Your task to perform on an android device: turn pop-ups on in chrome Image 0: 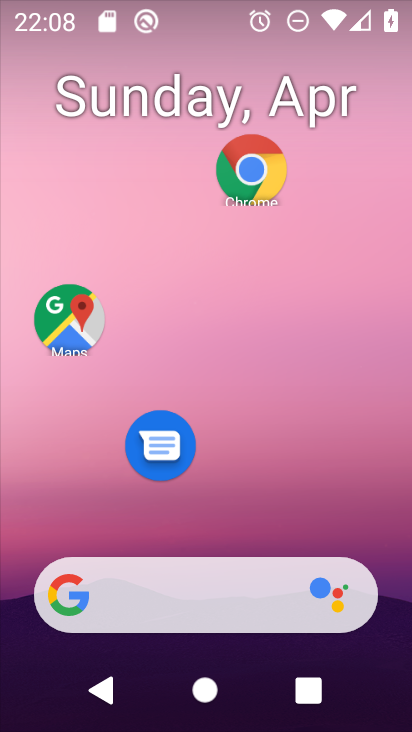
Step 0: press home button
Your task to perform on an android device: turn pop-ups on in chrome Image 1: 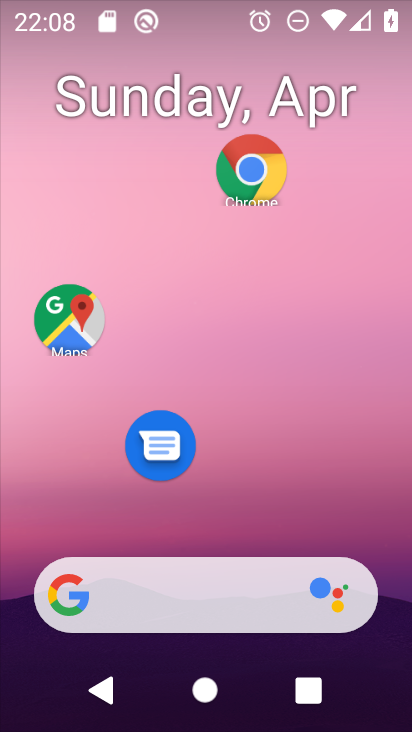
Step 1: click (250, 172)
Your task to perform on an android device: turn pop-ups on in chrome Image 2: 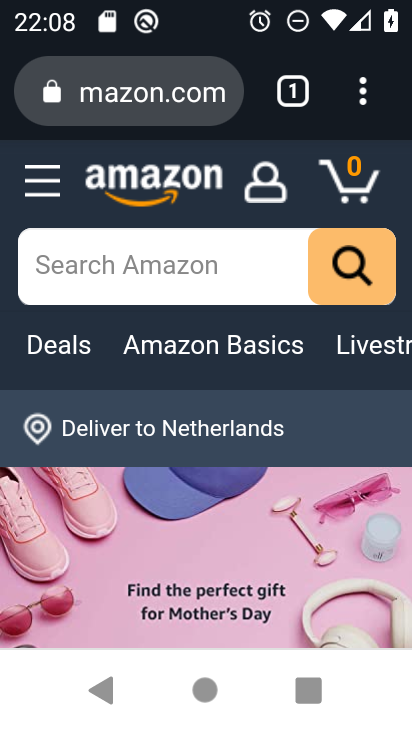
Step 2: click (361, 82)
Your task to perform on an android device: turn pop-ups on in chrome Image 3: 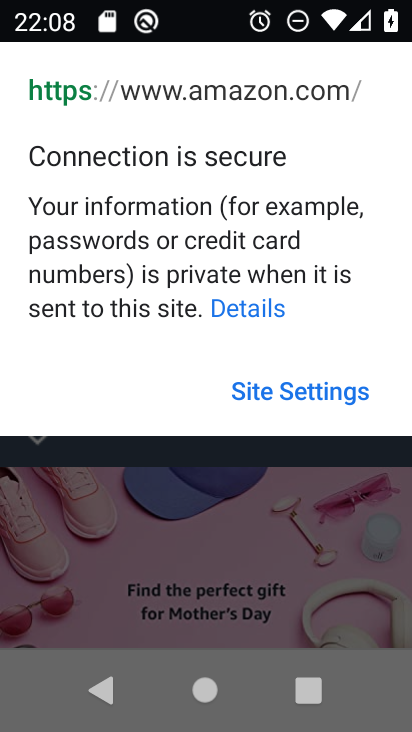
Step 3: press back button
Your task to perform on an android device: turn pop-ups on in chrome Image 4: 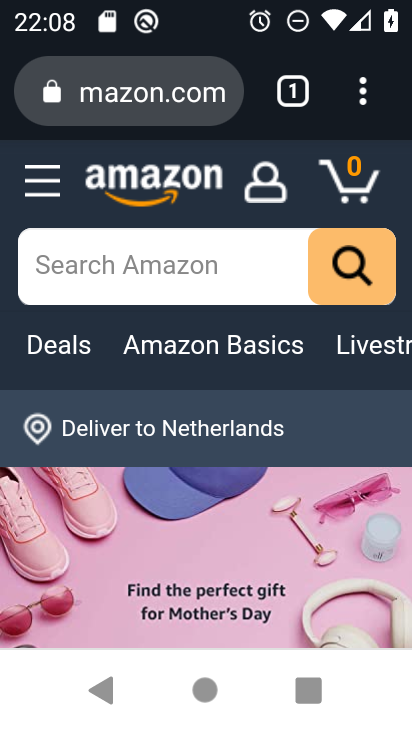
Step 4: click (351, 89)
Your task to perform on an android device: turn pop-ups on in chrome Image 5: 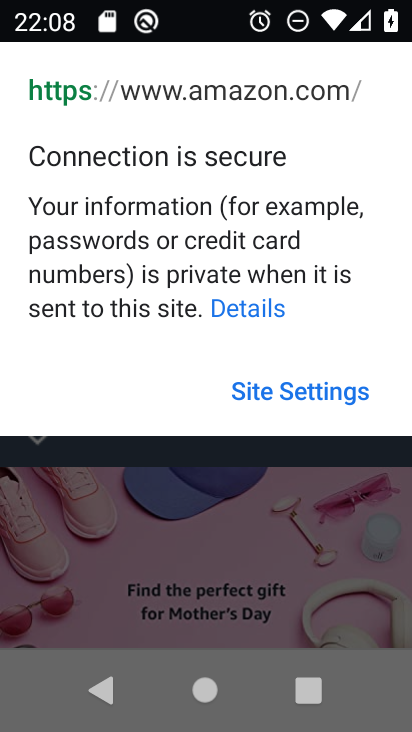
Step 5: press back button
Your task to perform on an android device: turn pop-ups on in chrome Image 6: 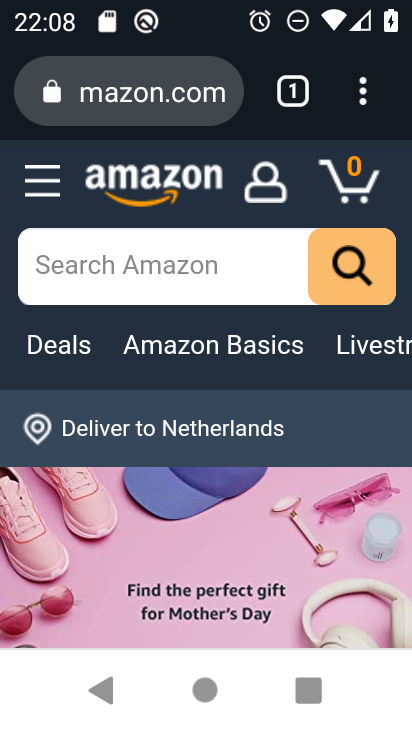
Step 6: click (361, 89)
Your task to perform on an android device: turn pop-ups on in chrome Image 7: 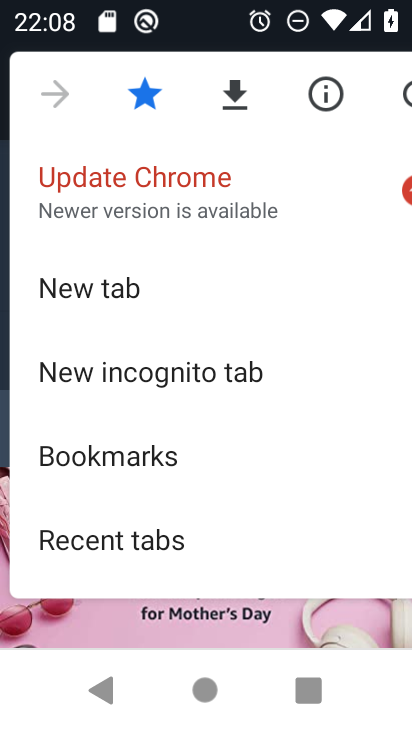
Step 7: drag from (259, 512) to (275, 215)
Your task to perform on an android device: turn pop-ups on in chrome Image 8: 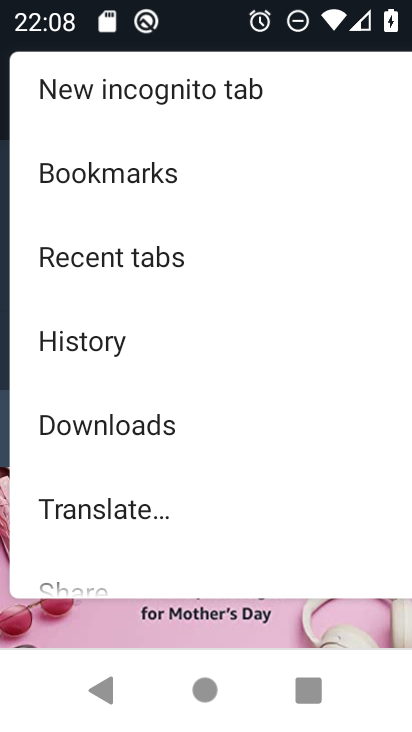
Step 8: drag from (202, 505) to (220, 215)
Your task to perform on an android device: turn pop-ups on in chrome Image 9: 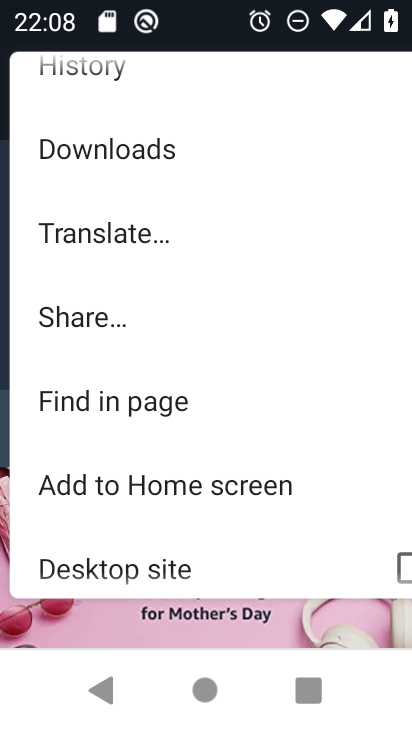
Step 9: drag from (257, 523) to (254, 244)
Your task to perform on an android device: turn pop-ups on in chrome Image 10: 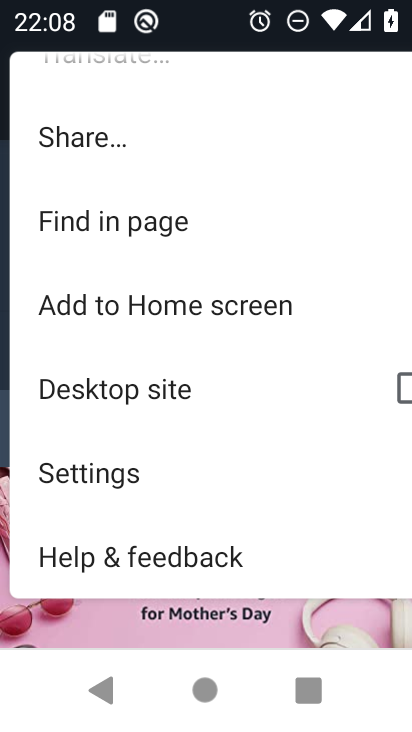
Step 10: click (139, 475)
Your task to perform on an android device: turn pop-ups on in chrome Image 11: 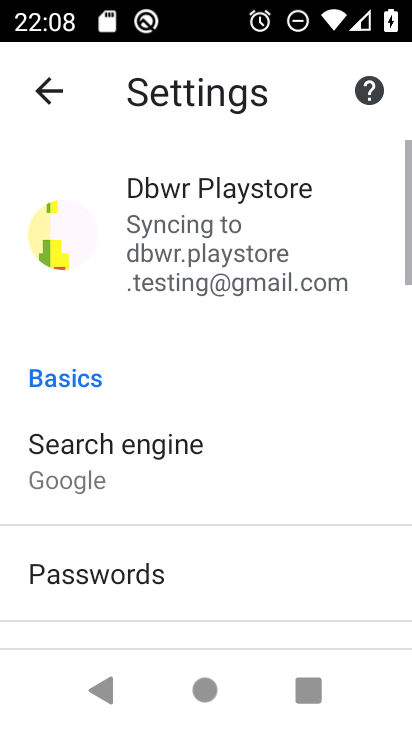
Step 11: drag from (225, 556) to (250, 156)
Your task to perform on an android device: turn pop-ups on in chrome Image 12: 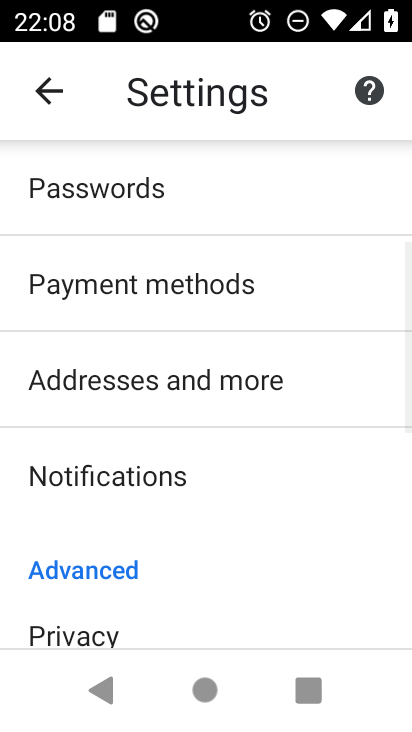
Step 12: drag from (210, 577) to (204, 239)
Your task to perform on an android device: turn pop-ups on in chrome Image 13: 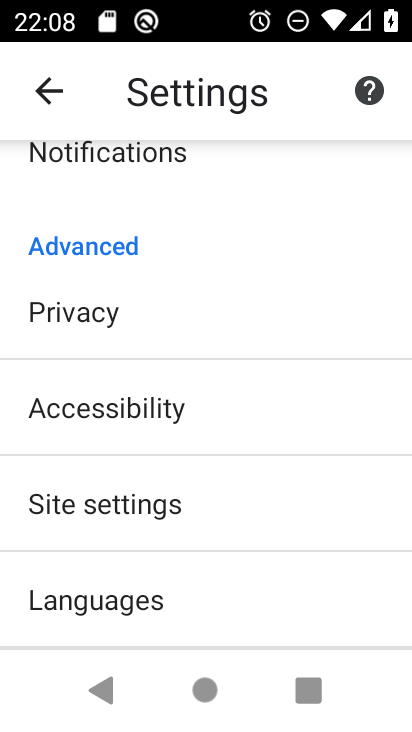
Step 13: click (100, 509)
Your task to perform on an android device: turn pop-ups on in chrome Image 14: 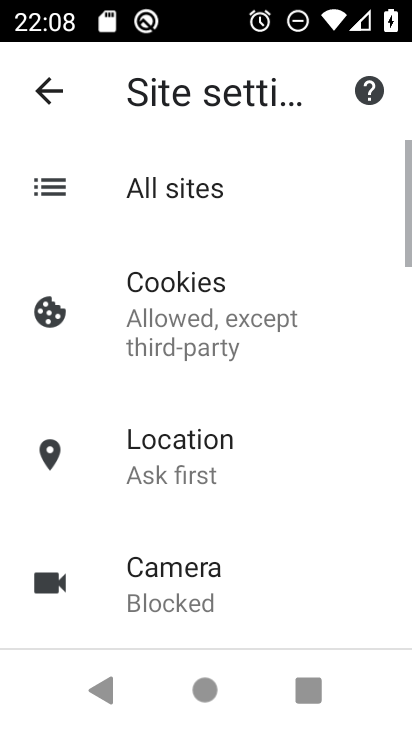
Step 14: drag from (292, 528) to (336, 117)
Your task to perform on an android device: turn pop-ups on in chrome Image 15: 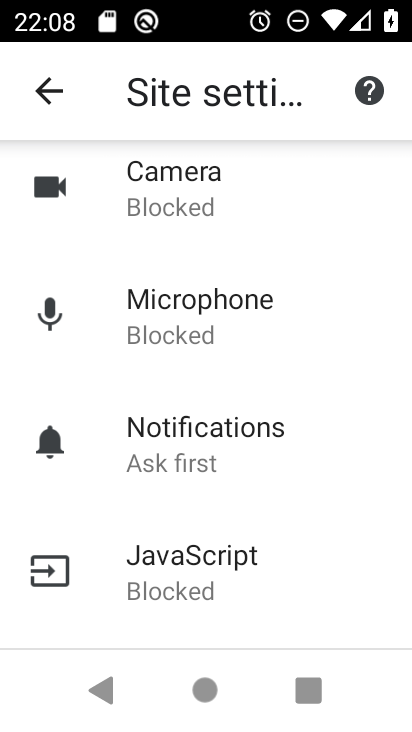
Step 15: drag from (229, 590) to (254, 295)
Your task to perform on an android device: turn pop-ups on in chrome Image 16: 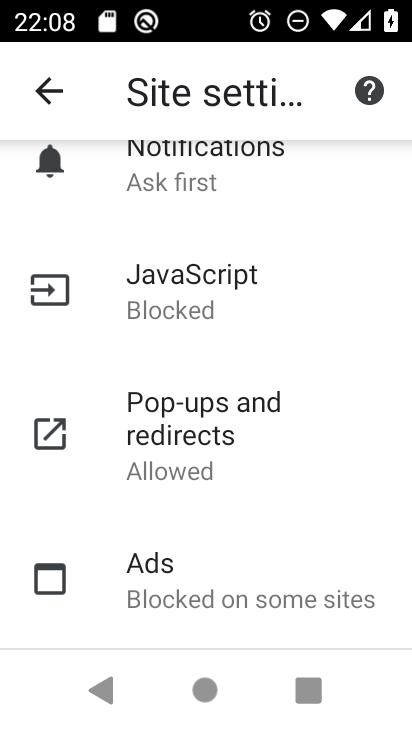
Step 16: click (199, 440)
Your task to perform on an android device: turn pop-ups on in chrome Image 17: 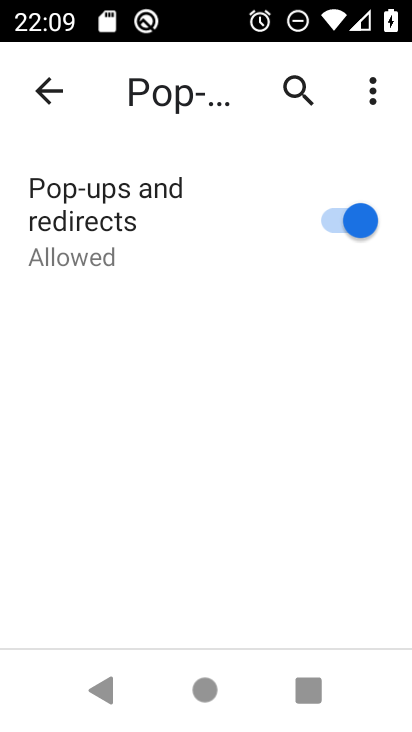
Step 17: task complete